Your task to perform on an android device: turn on location history Image 0: 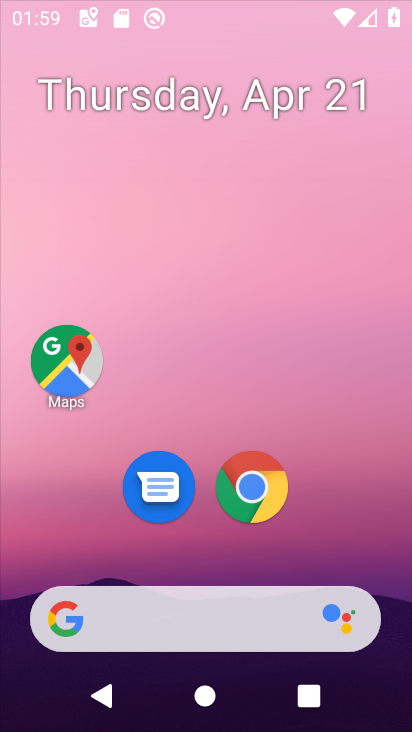
Step 0: click (269, 234)
Your task to perform on an android device: turn on location history Image 1: 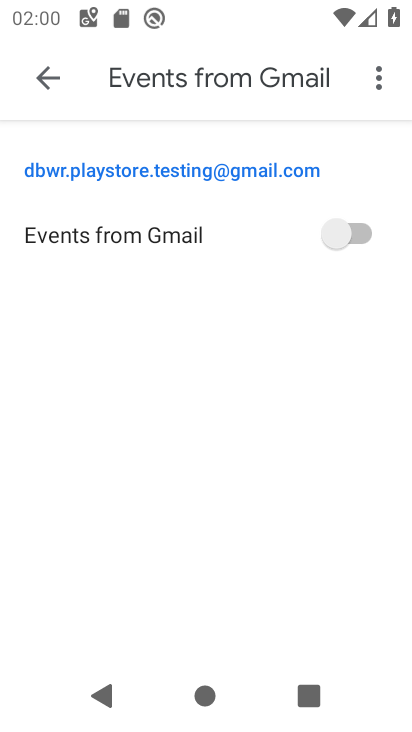
Step 1: press home button
Your task to perform on an android device: turn on location history Image 2: 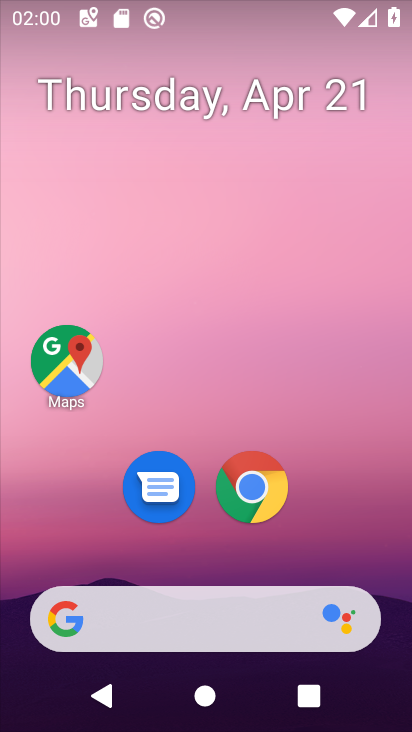
Step 2: drag from (254, 556) to (372, 122)
Your task to perform on an android device: turn on location history Image 3: 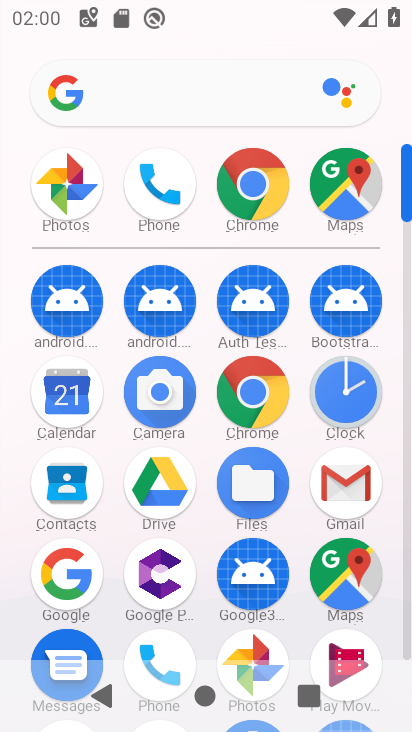
Step 3: drag from (196, 624) to (229, 238)
Your task to perform on an android device: turn on location history Image 4: 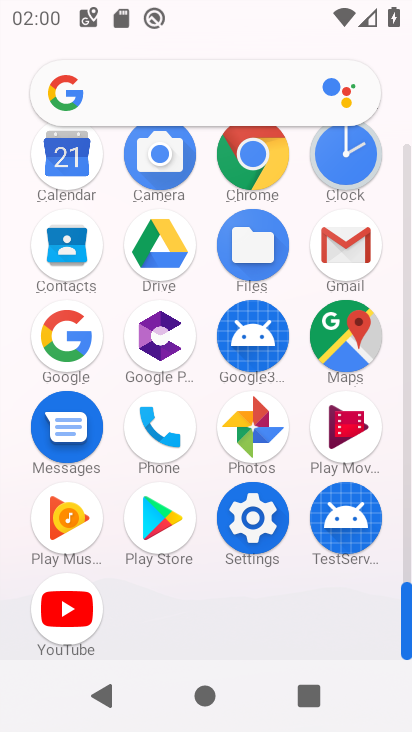
Step 4: click (241, 512)
Your task to perform on an android device: turn on location history Image 5: 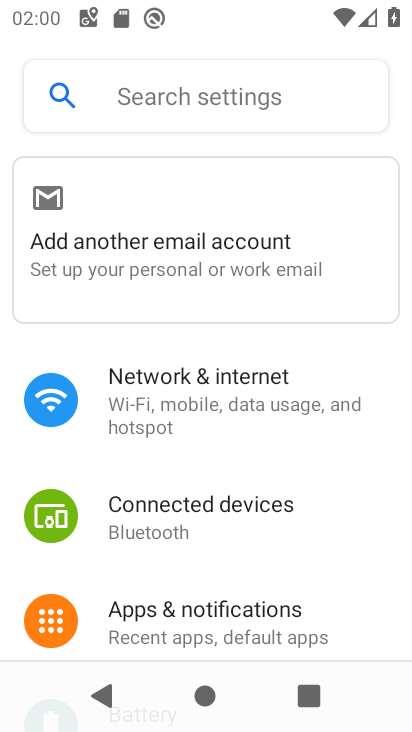
Step 5: drag from (261, 492) to (293, 58)
Your task to perform on an android device: turn on location history Image 6: 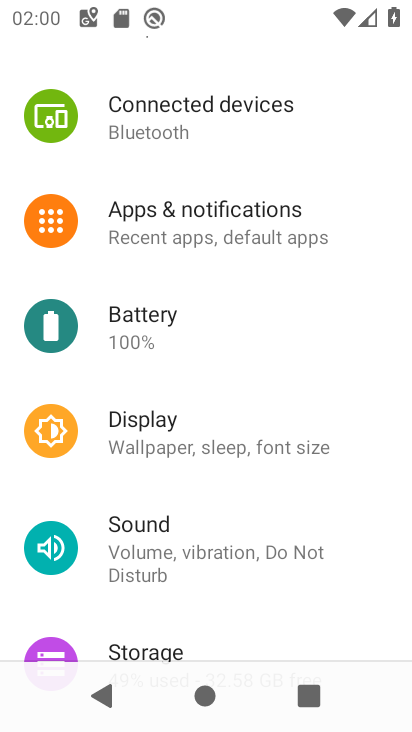
Step 6: drag from (197, 522) to (227, 98)
Your task to perform on an android device: turn on location history Image 7: 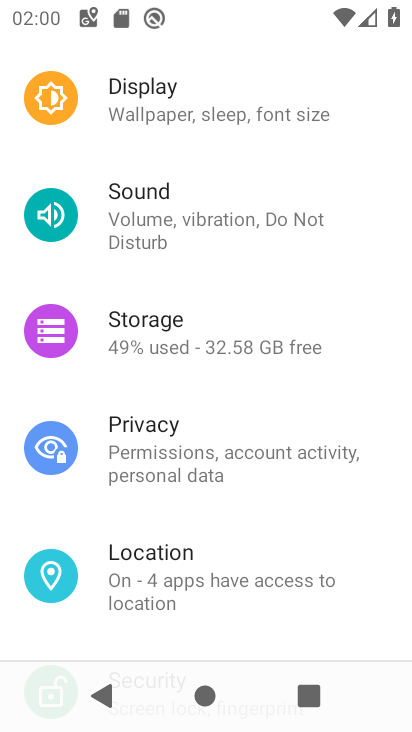
Step 7: click (174, 560)
Your task to perform on an android device: turn on location history Image 8: 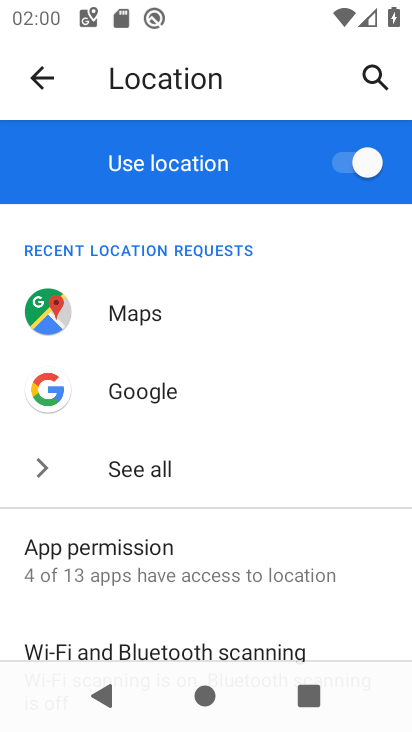
Step 8: drag from (252, 582) to (295, 222)
Your task to perform on an android device: turn on location history Image 9: 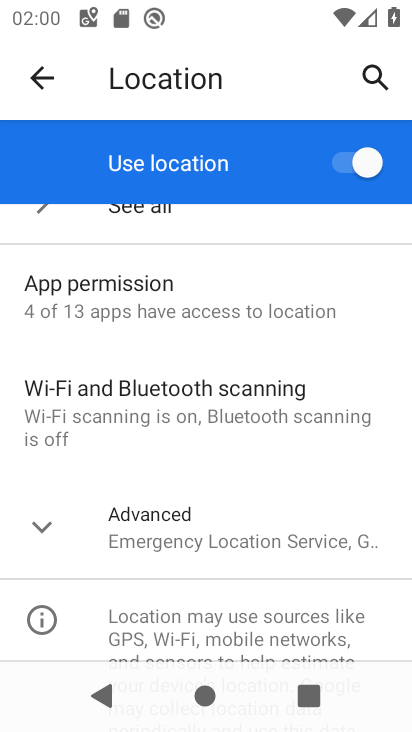
Step 9: drag from (261, 562) to (261, 318)
Your task to perform on an android device: turn on location history Image 10: 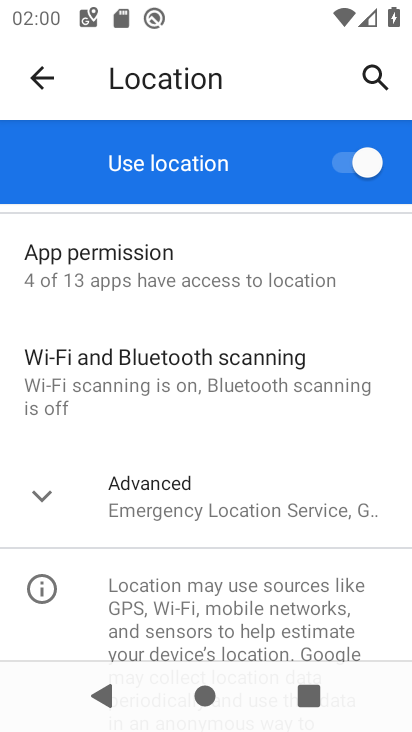
Step 10: drag from (263, 556) to (243, 389)
Your task to perform on an android device: turn on location history Image 11: 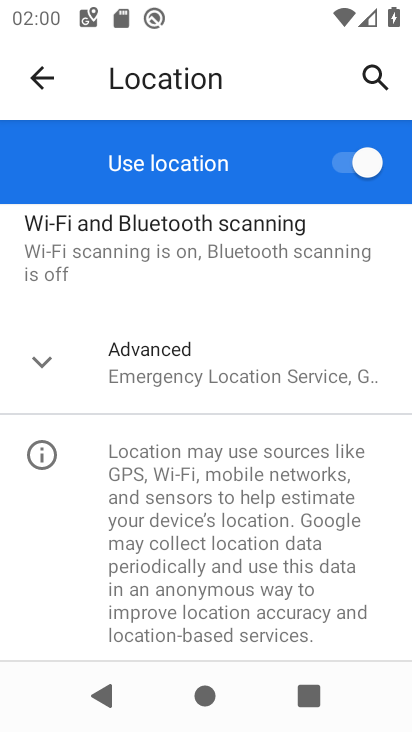
Step 11: click (151, 343)
Your task to perform on an android device: turn on location history Image 12: 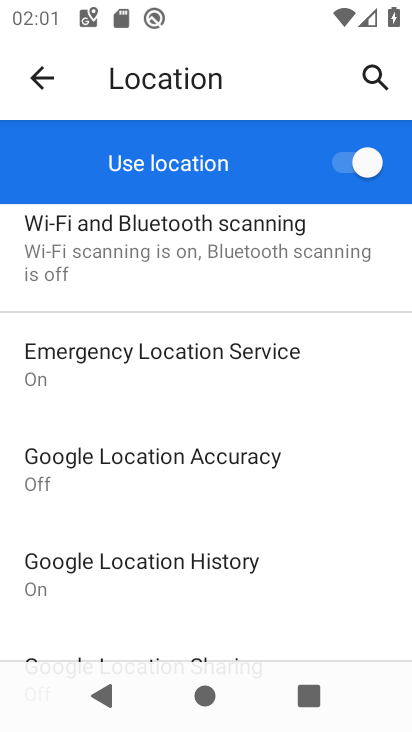
Step 12: click (198, 567)
Your task to perform on an android device: turn on location history Image 13: 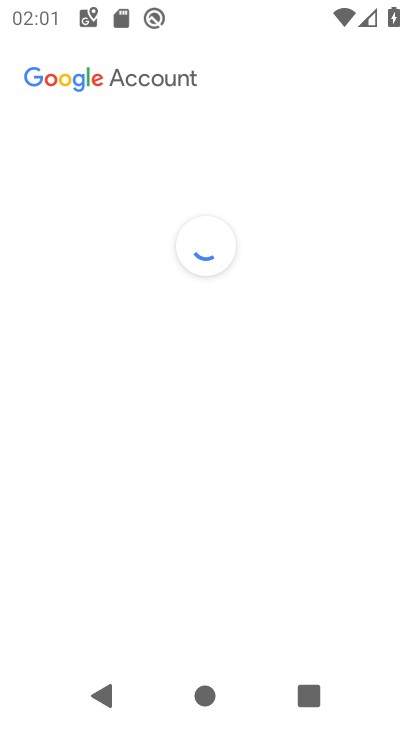
Step 13: task complete